Your task to perform on an android device: show emergency info Image 0: 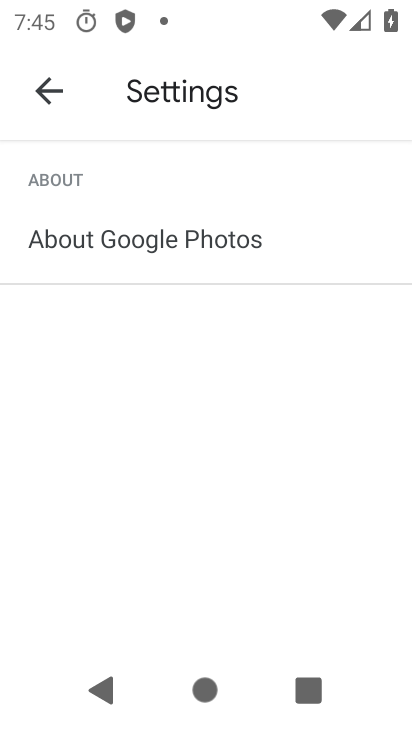
Step 0: press home button
Your task to perform on an android device: show emergency info Image 1: 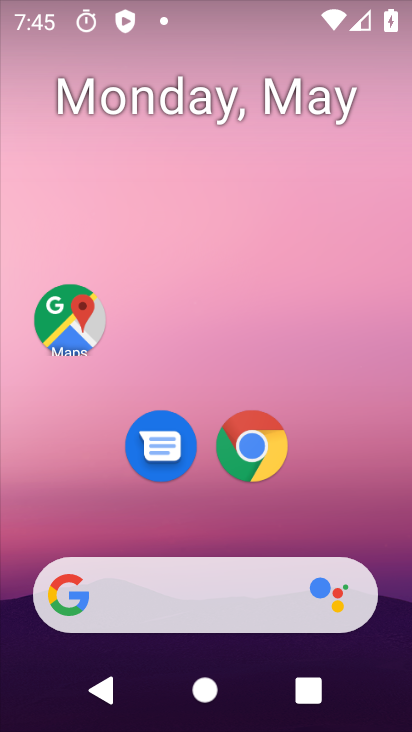
Step 1: drag from (361, 543) to (374, 9)
Your task to perform on an android device: show emergency info Image 2: 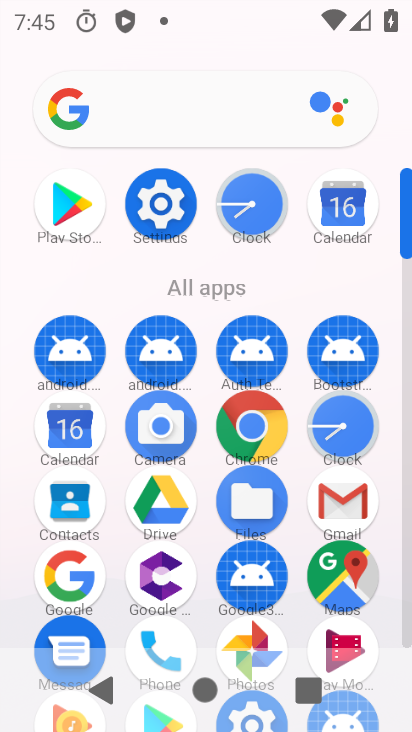
Step 2: click (158, 213)
Your task to perform on an android device: show emergency info Image 3: 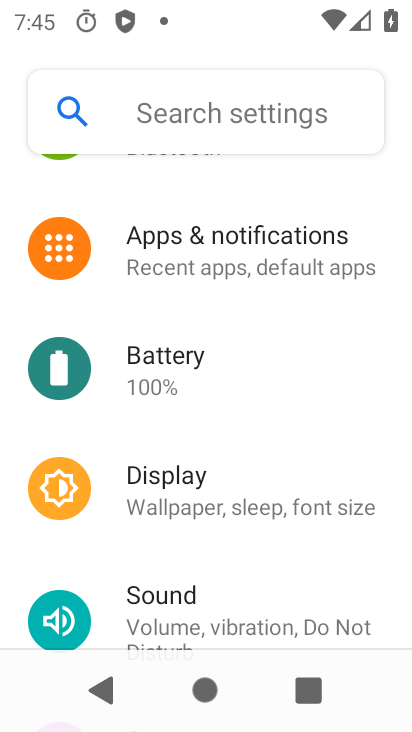
Step 3: drag from (229, 566) to (242, 41)
Your task to perform on an android device: show emergency info Image 4: 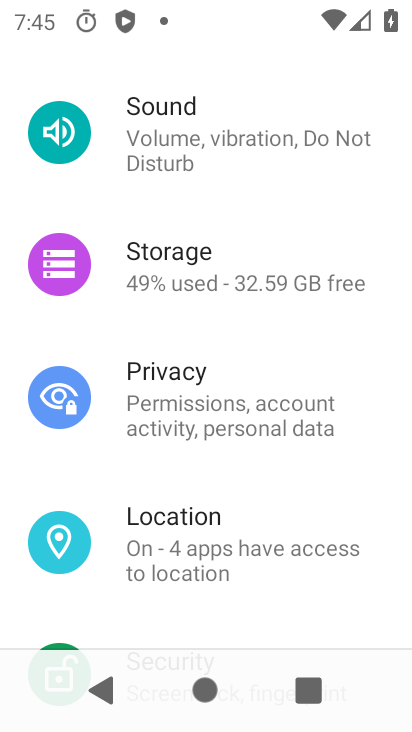
Step 4: drag from (217, 508) to (226, 76)
Your task to perform on an android device: show emergency info Image 5: 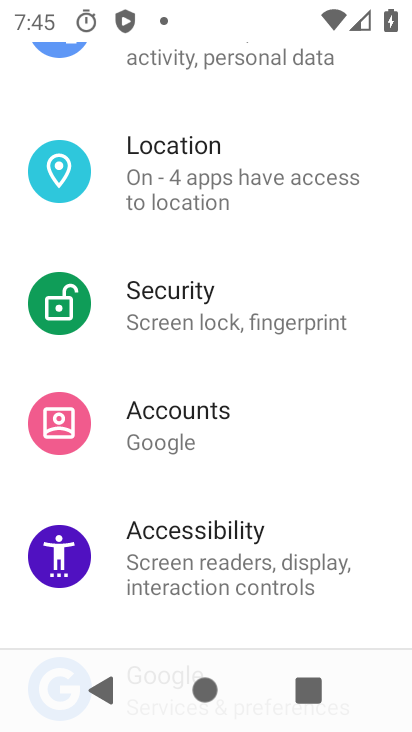
Step 5: drag from (230, 531) to (220, 63)
Your task to perform on an android device: show emergency info Image 6: 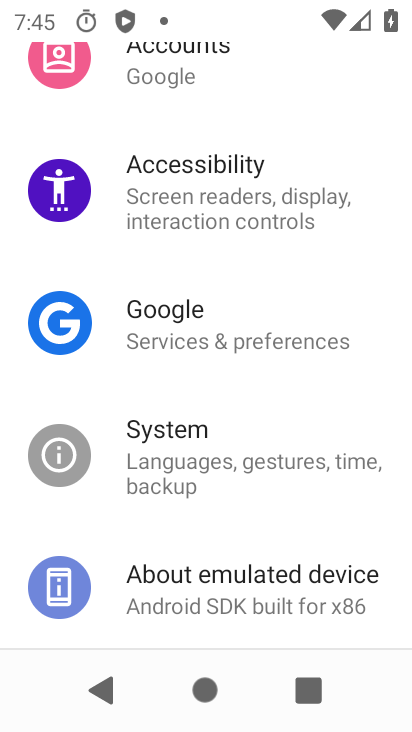
Step 6: click (189, 589)
Your task to perform on an android device: show emergency info Image 7: 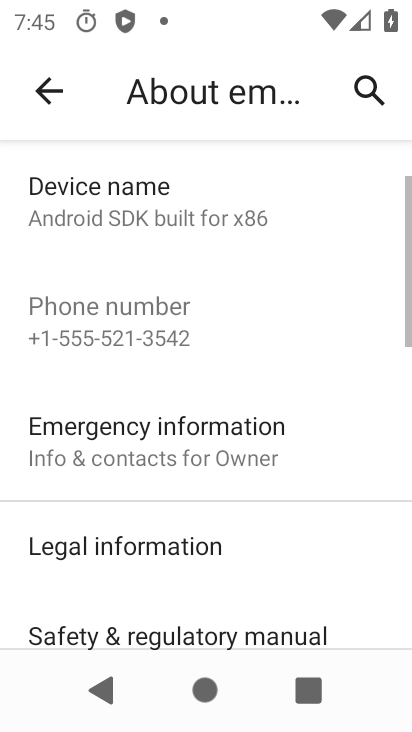
Step 7: click (154, 448)
Your task to perform on an android device: show emergency info Image 8: 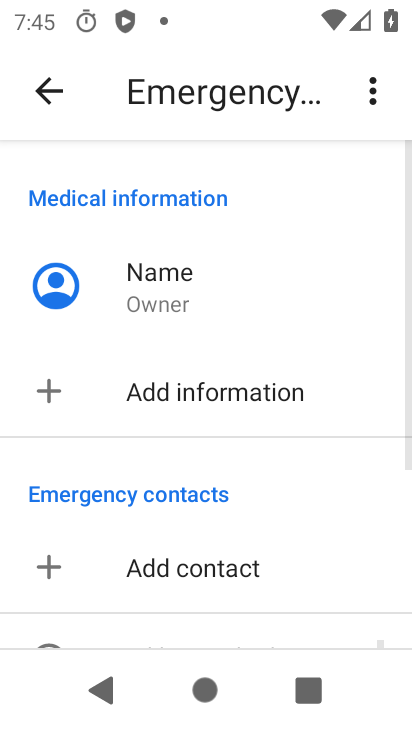
Step 8: task complete